Your task to perform on an android device: open app "TextNow: Call + Text Unlimited" (install if not already installed) and go to login screen Image 0: 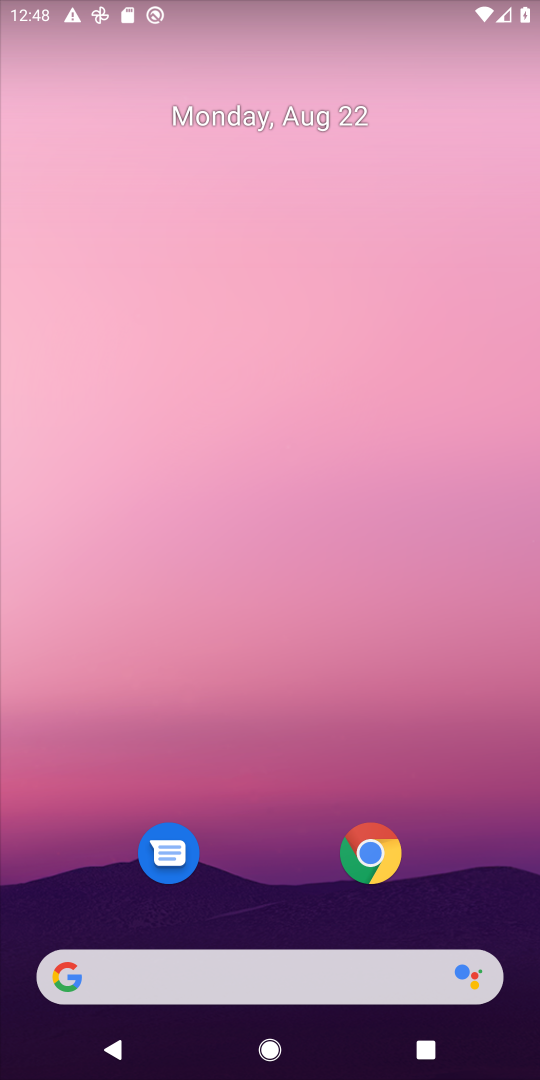
Step 0: drag from (251, 853) to (254, 182)
Your task to perform on an android device: open app "TextNow: Call + Text Unlimited" (install if not already installed) and go to login screen Image 1: 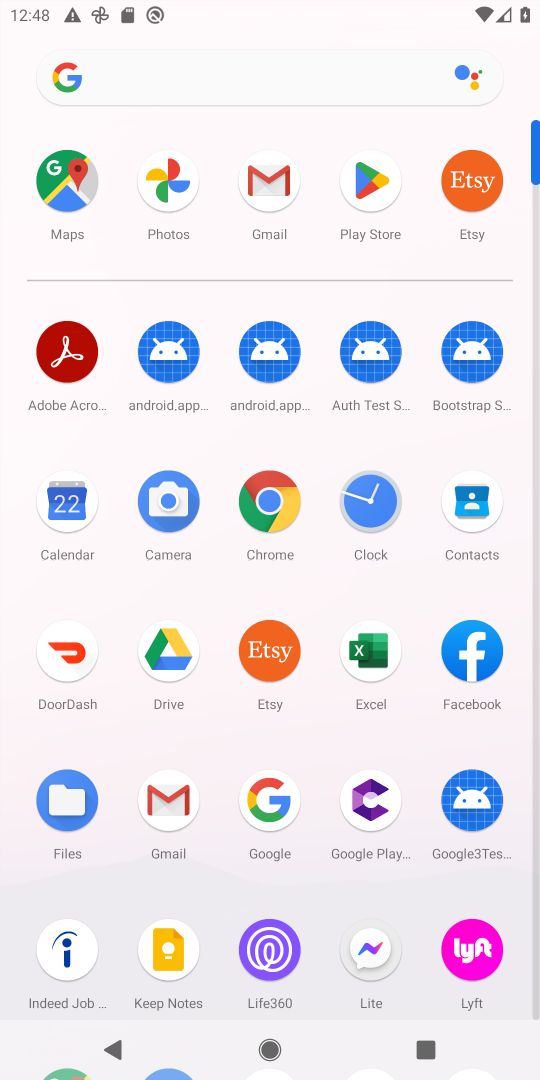
Step 1: click (363, 177)
Your task to perform on an android device: open app "TextNow: Call + Text Unlimited" (install if not already installed) and go to login screen Image 2: 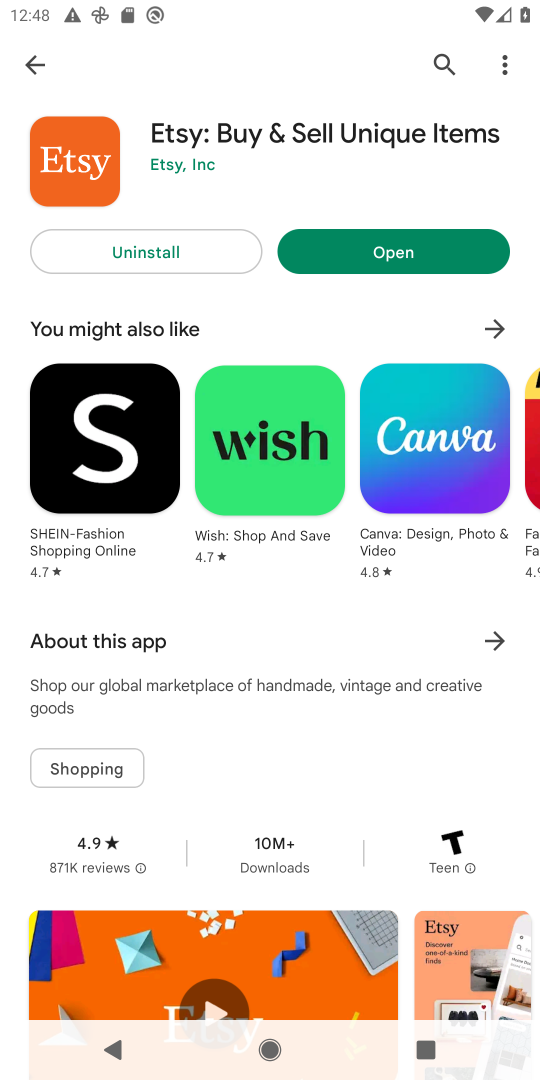
Step 2: click (45, 72)
Your task to perform on an android device: open app "TextNow: Call + Text Unlimited" (install if not already installed) and go to login screen Image 3: 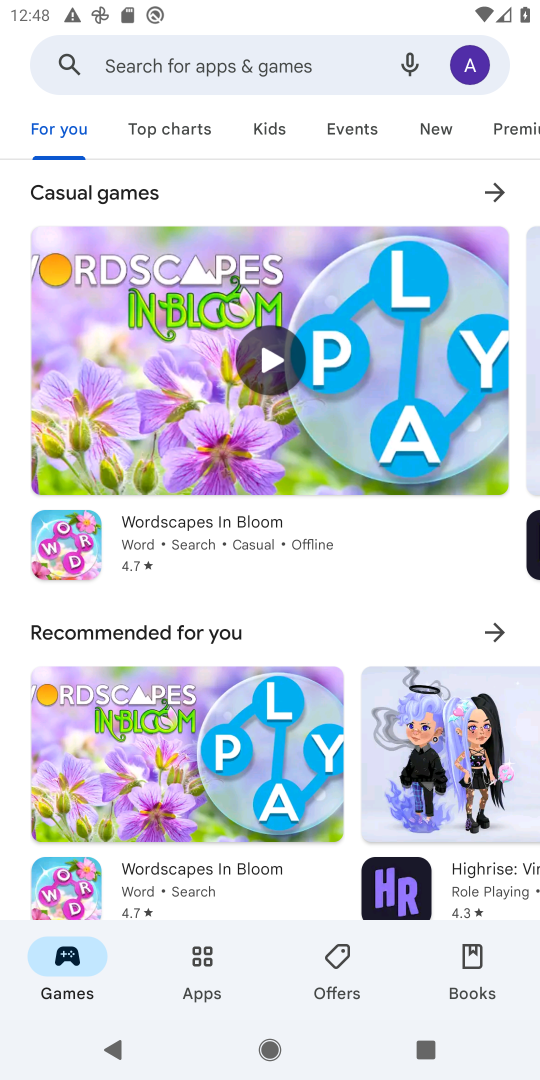
Step 3: click (235, 54)
Your task to perform on an android device: open app "TextNow: Call + Text Unlimited" (install if not already installed) and go to login screen Image 4: 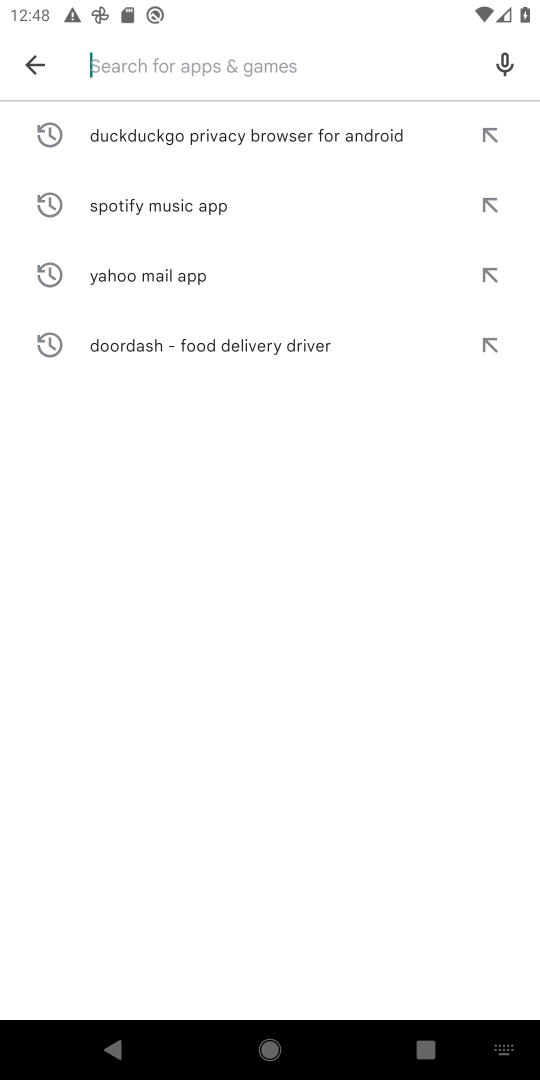
Step 4: type "TextNow: Call + Text Unlimited "
Your task to perform on an android device: open app "TextNow: Call + Text Unlimited" (install if not already installed) and go to login screen Image 5: 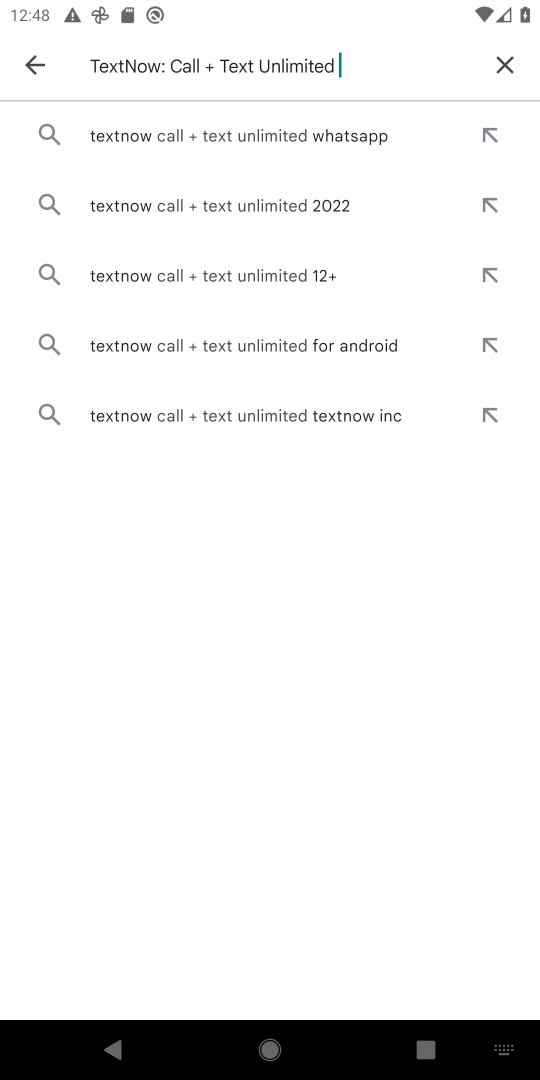
Step 5: click (234, 147)
Your task to perform on an android device: open app "TextNow: Call + Text Unlimited" (install if not already installed) and go to login screen Image 6: 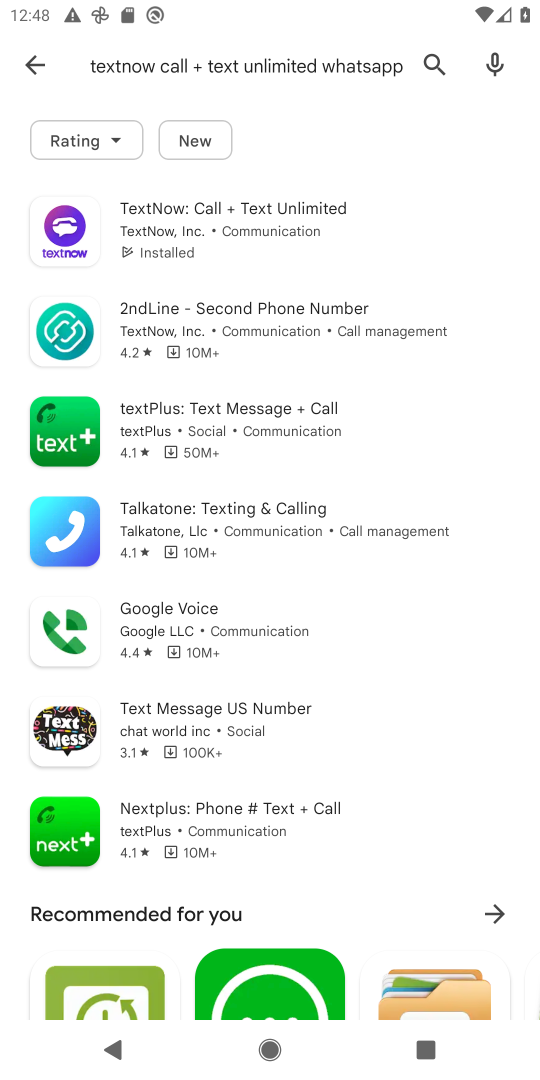
Step 6: click (209, 221)
Your task to perform on an android device: open app "TextNow: Call + Text Unlimited" (install if not already installed) and go to login screen Image 7: 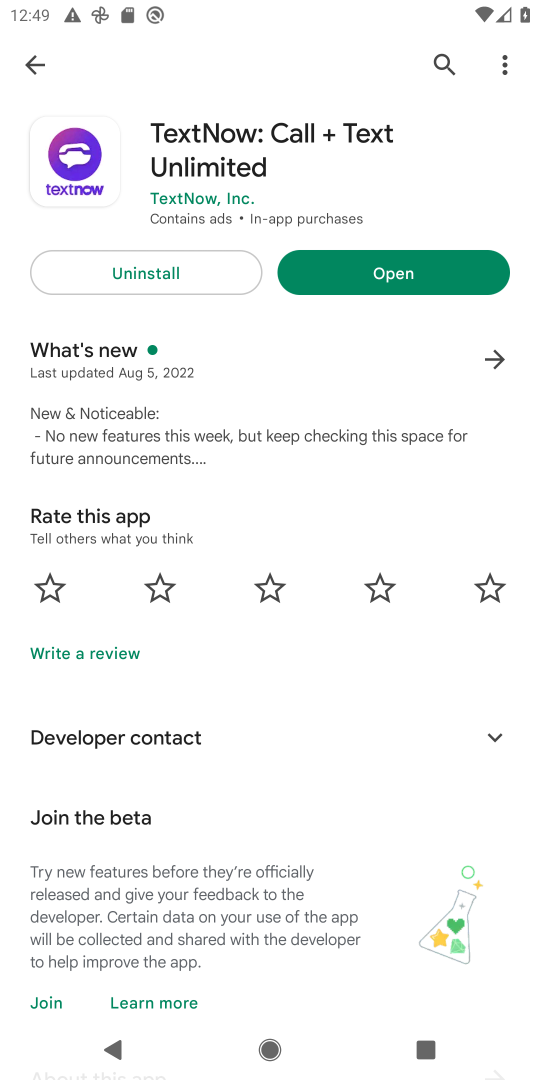
Step 7: click (369, 259)
Your task to perform on an android device: open app "TextNow: Call + Text Unlimited" (install if not already installed) and go to login screen Image 8: 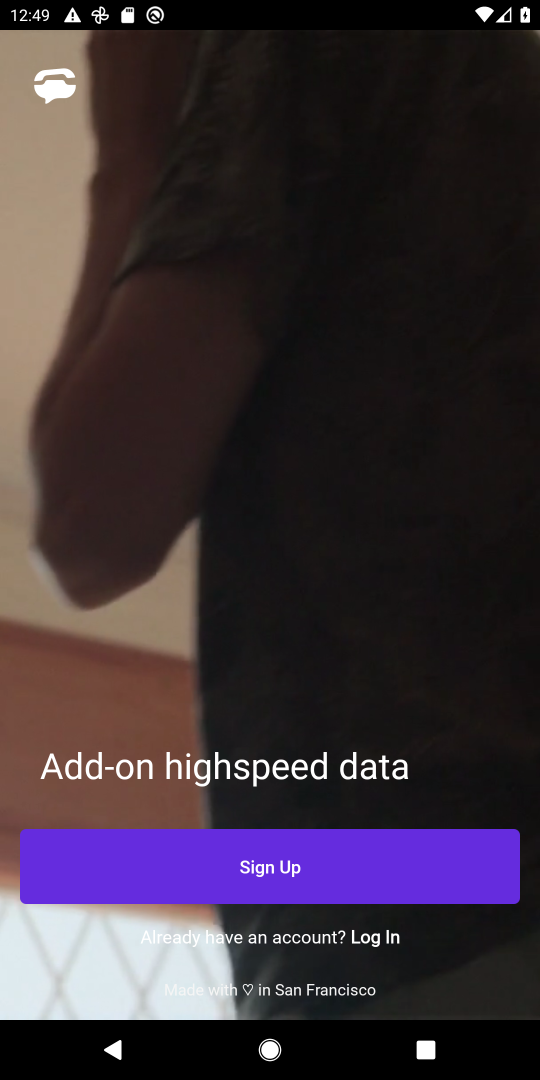
Step 8: task complete